Your task to perform on an android device: refresh tabs in the chrome app Image 0: 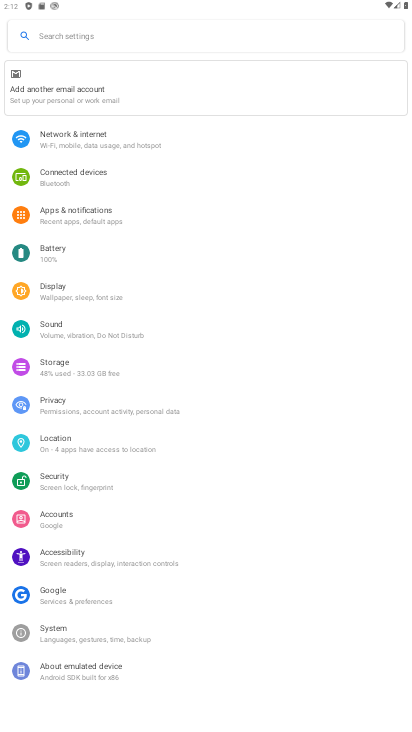
Step 0: press home button
Your task to perform on an android device: refresh tabs in the chrome app Image 1: 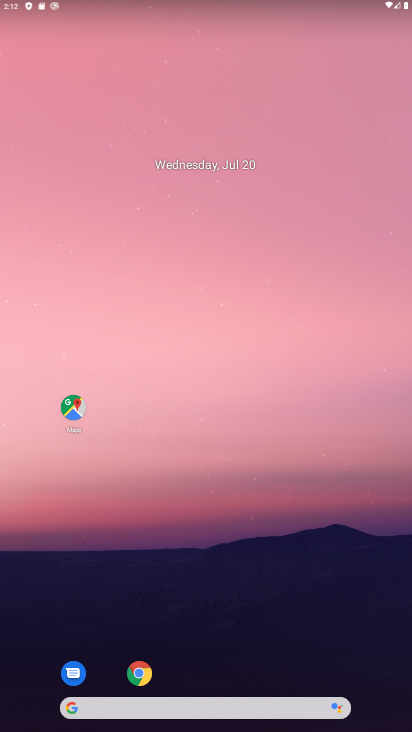
Step 1: drag from (215, 683) to (155, 126)
Your task to perform on an android device: refresh tabs in the chrome app Image 2: 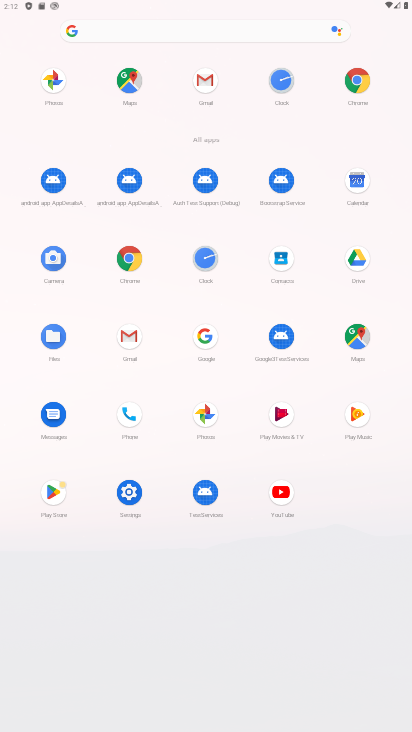
Step 2: click (134, 256)
Your task to perform on an android device: refresh tabs in the chrome app Image 3: 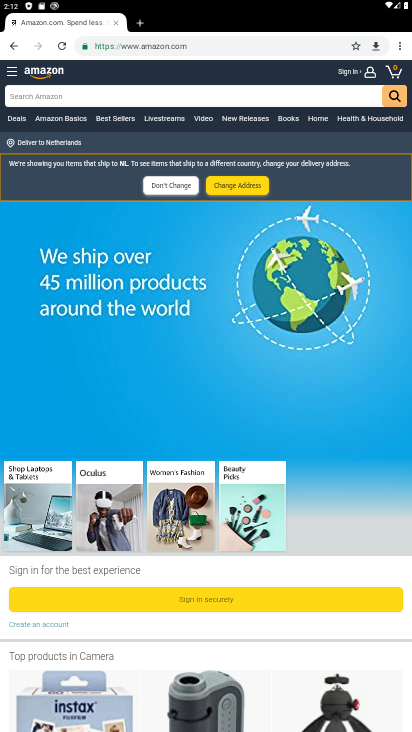
Step 3: click (401, 45)
Your task to perform on an android device: refresh tabs in the chrome app Image 4: 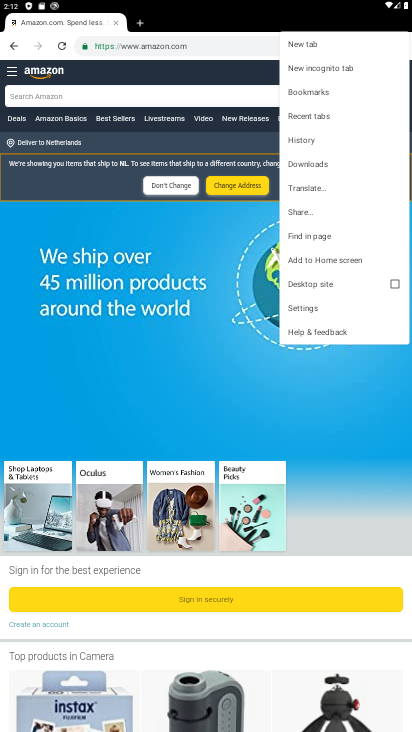
Step 4: click (59, 38)
Your task to perform on an android device: refresh tabs in the chrome app Image 5: 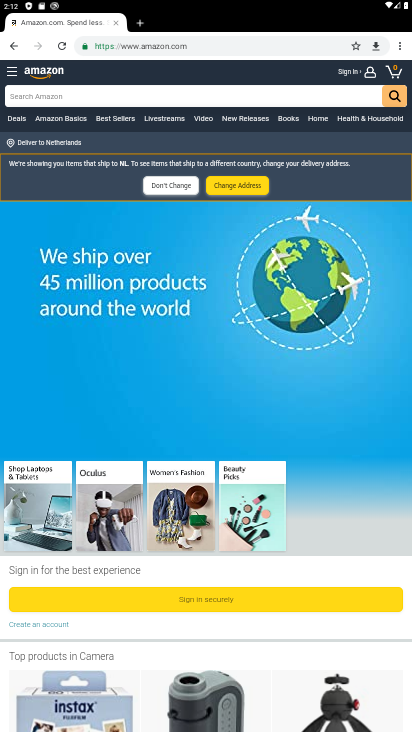
Step 5: click (59, 49)
Your task to perform on an android device: refresh tabs in the chrome app Image 6: 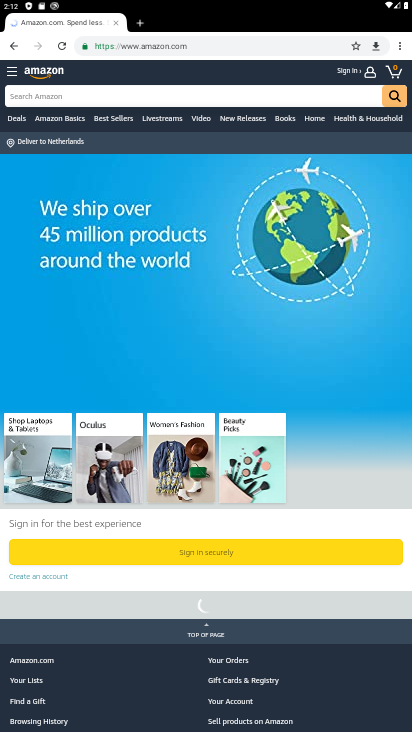
Step 6: task complete